Your task to perform on an android device: Search for vegetarian restaurants on Maps Image 0: 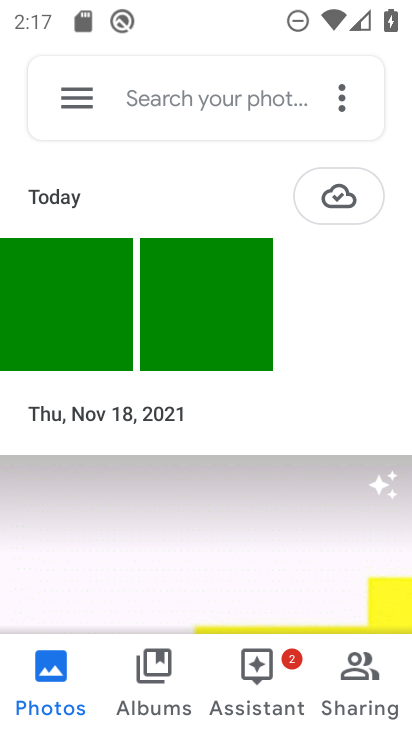
Step 0: press home button
Your task to perform on an android device: Search for vegetarian restaurants on Maps Image 1: 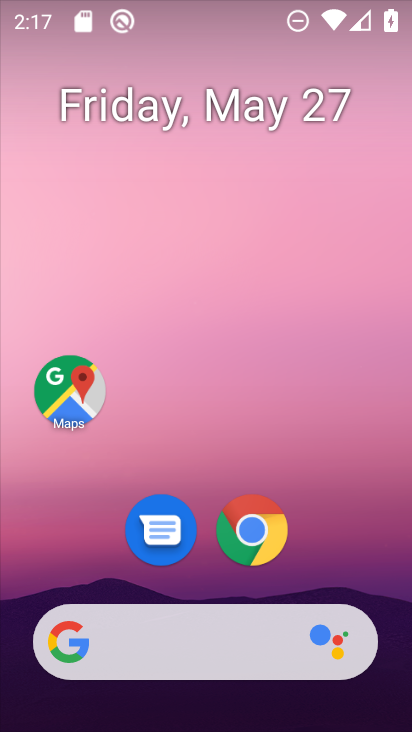
Step 1: click (80, 391)
Your task to perform on an android device: Search for vegetarian restaurants on Maps Image 2: 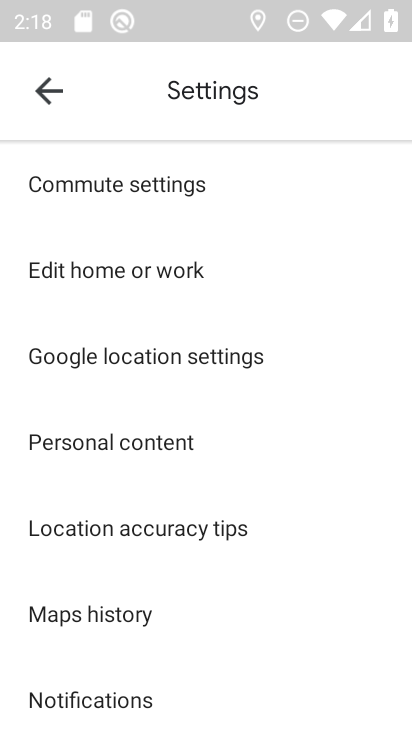
Step 2: click (49, 107)
Your task to perform on an android device: Search for vegetarian restaurants on Maps Image 3: 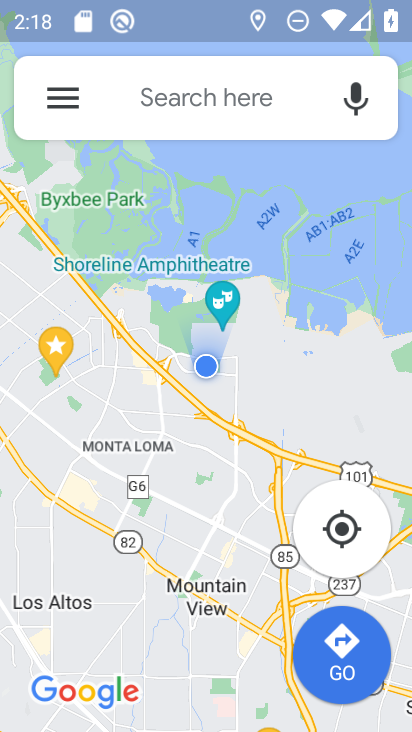
Step 3: click (160, 106)
Your task to perform on an android device: Search for vegetarian restaurants on Maps Image 4: 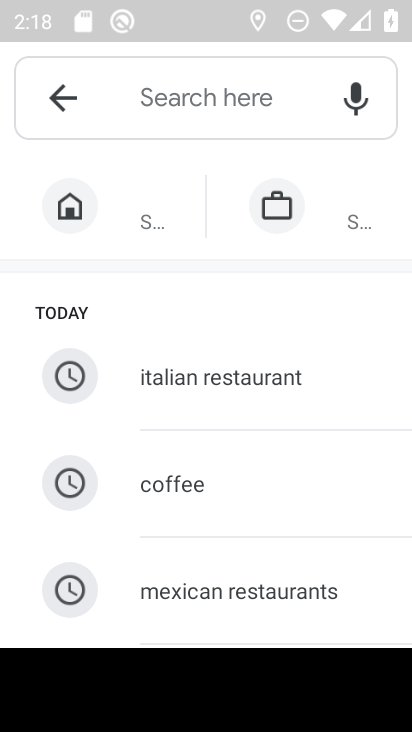
Step 4: type "vegetarian restaurants"
Your task to perform on an android device: Search for vegetarian restaurants on Maps Image 5: 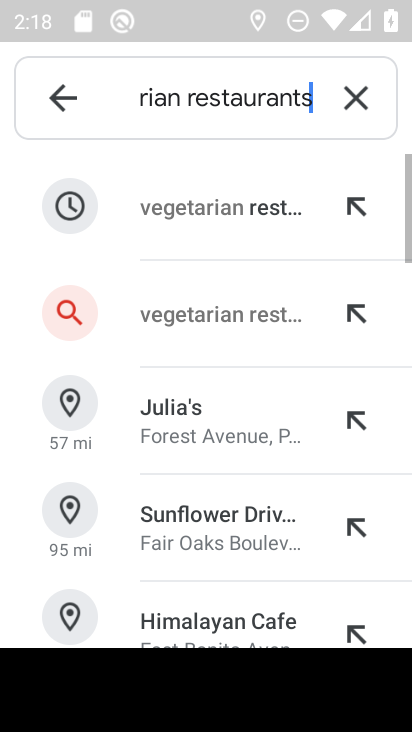
Step 5: click (229, 226)
Your task to perform on an android device: Search for vegetarian restaurants on Maps Image 6: 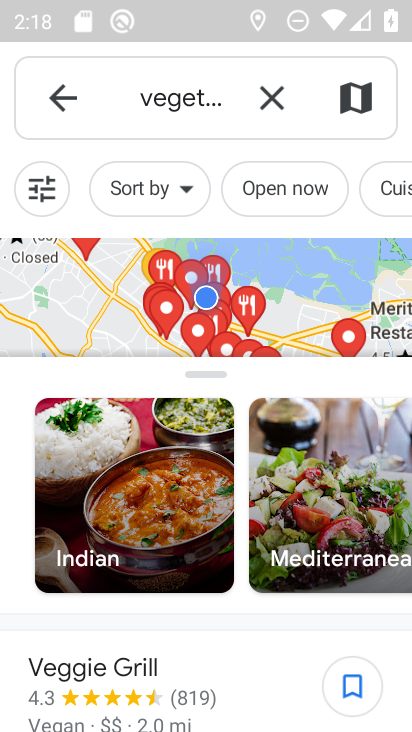
Step 6: task complete